Your task to perform on an android device: change the clock display to analog Image 0: 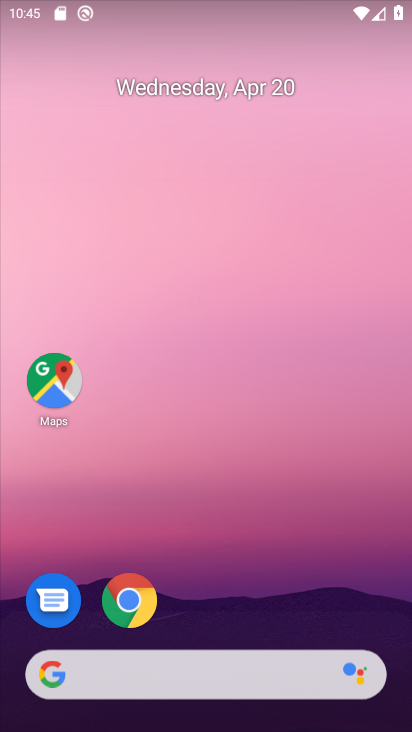
Step 0: drag from (328, 627) to (361, 91)
Your task to perform on an android device: change the clock display to analog Image 1: 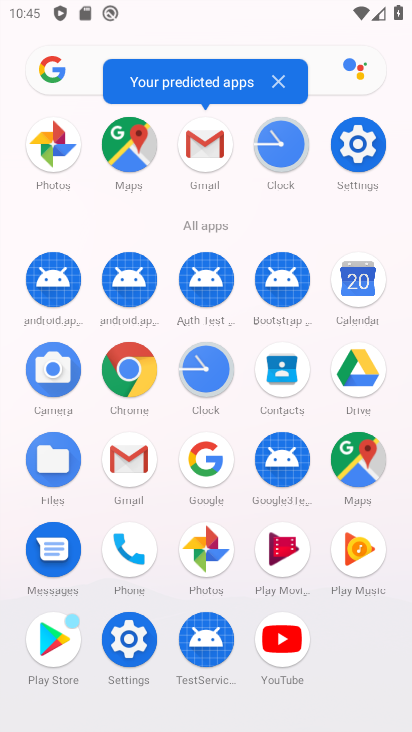
Step 1: click (298, 152)
Your task to perform on an android device: change the clock display to analog Image 2: 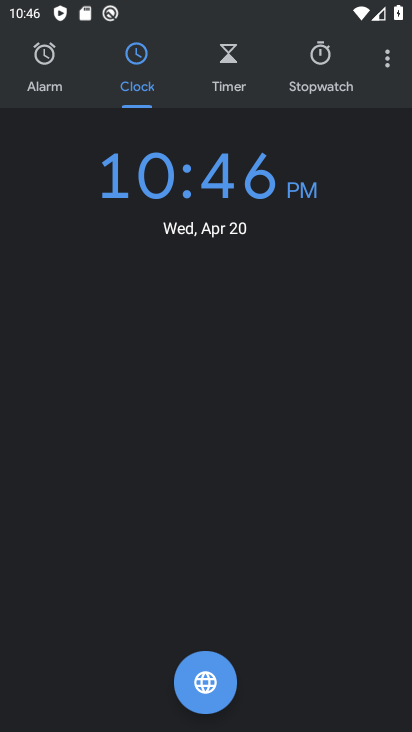
Step 2: click (382, 61)
Your task to perform on an android device: change the clock display to analog Image 3: 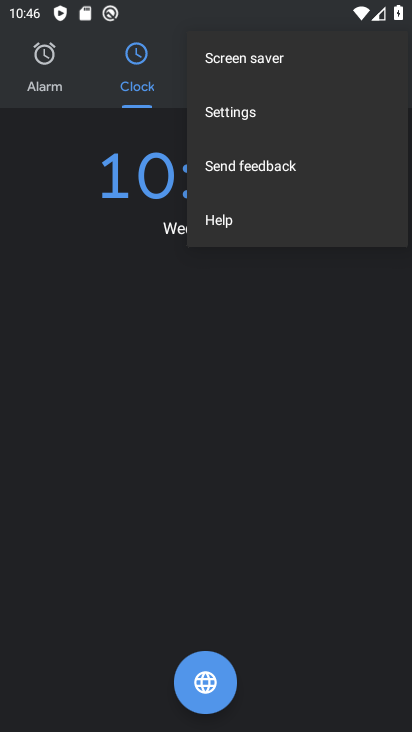
Step 3: click (309, 118)
Your task to perform on an android device: change the clock display to analog Image 4: 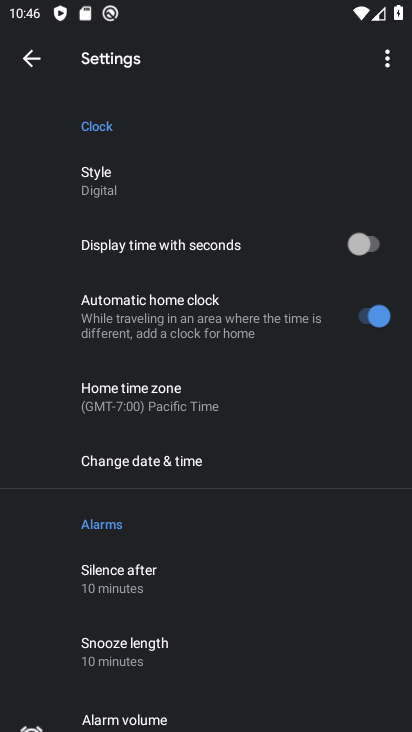
Step 4: click (220, 185)
Your task to perform on an android device: change the clock display to analog Image 5: 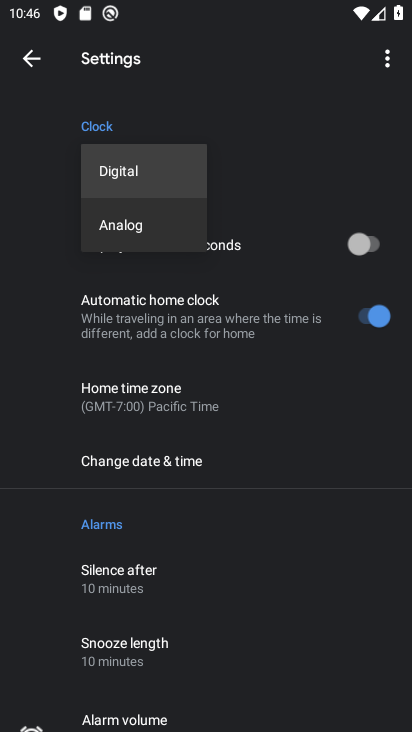
Step 5: click (190, 224)
Your task to perform on an android device: change the clock display to analog Image 6: 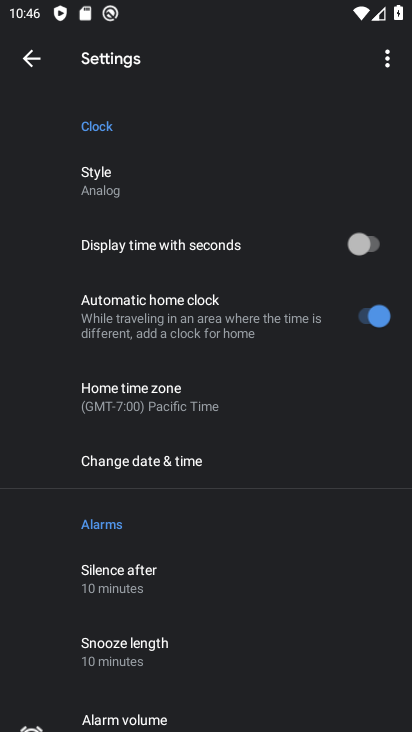
Step 6: task complete